Your task to perform on an android device: View the shopping cart on target.com. Search for "apple airpods pro" on target.com, select the first entry, and add it to the cart. Image 0: 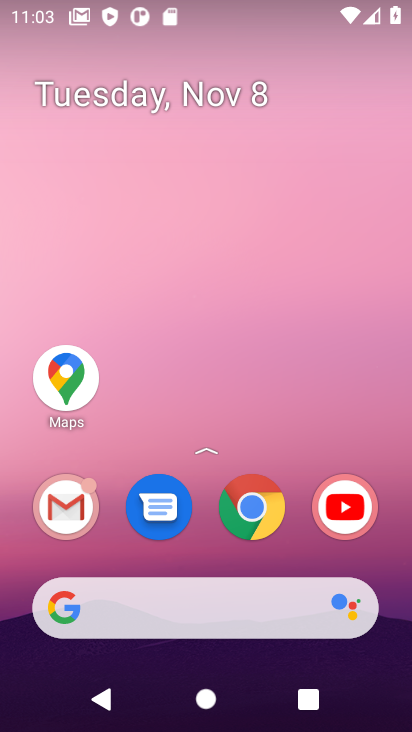
Step 0: click (259, 517)
Your task to perform on an android device: View the shopping cart on target.com. Search for "apple airpods pro" on target.com, select the first entry, and add it to the cart. Image 1: 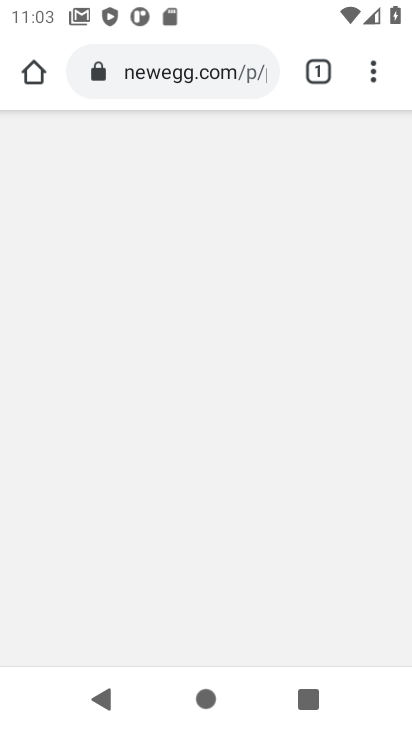
Step 1: click (240, 74)
Your task to perform on an android device: View the shopping cart on target.com. Search for "apple airpods pro" on target.com, select the first entry, and add it to the cart. Image 2: 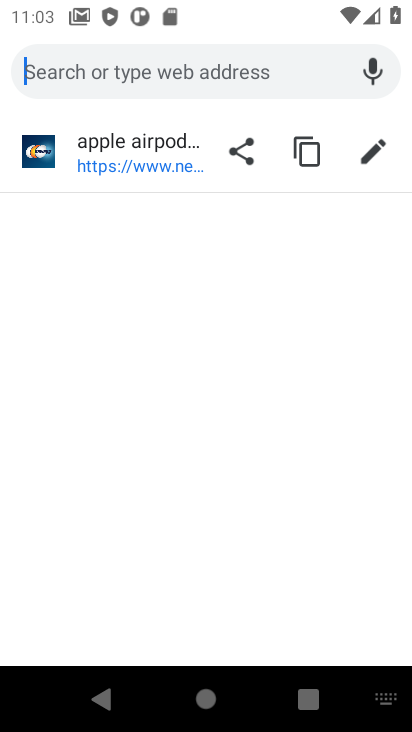
Step 2: type "target.com"
Your task to perform on an android device: View the shopping cart on target.com. Search for "apple airpods pro" on target.com, select the first entry, and add it to the cart. Image 3: 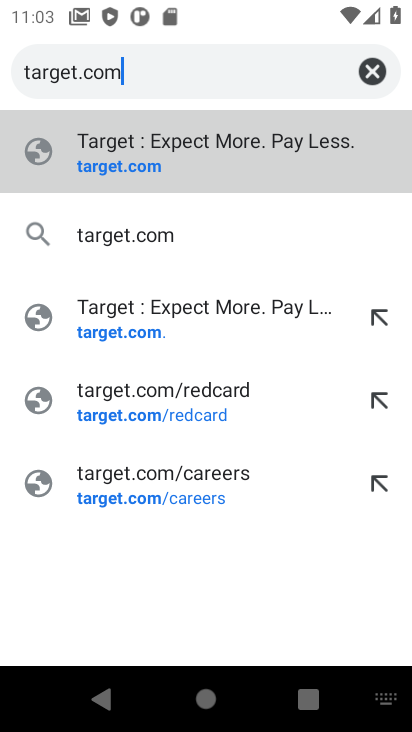
Step 3: press enter
Your task to perform on an android device: View the shopping cart on target.com. Search for "apple airpods pro" on target.com, select the first entry, and add it to the cart. Image 4: 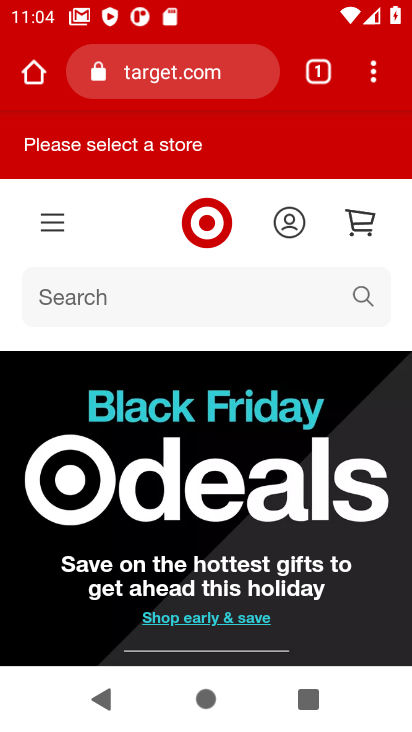
Step 4: click (115, 300)
Your task to perform on an android device: View the shopping cart on target.com. Search for "apple airpods pro" on target.com, select the first entry, and add it to the cart. Image 5: 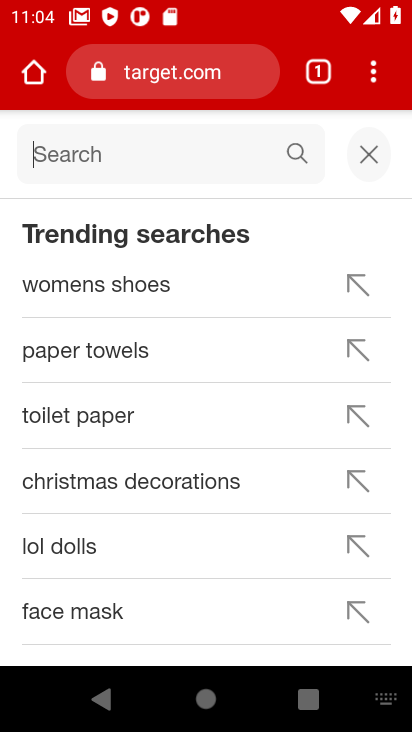
Step 5: press enter
Your task to perform on an android device: View the shopping cart on target.com. Search for "apple airpods pro" on target.com, select the first entry, and add it to the cart. Image 6: 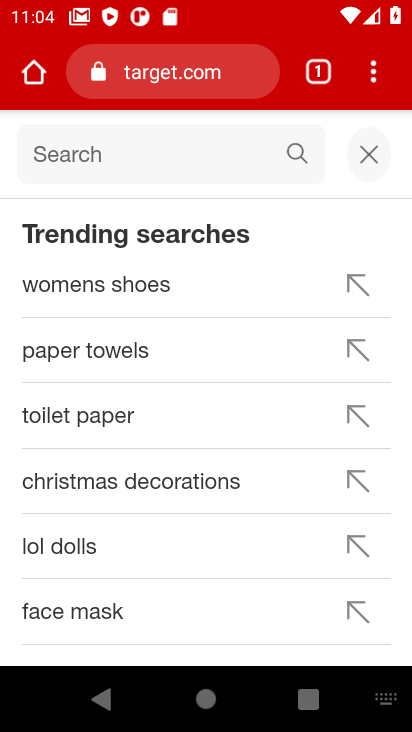
Step 6: type "apple airpods pro"
Your task to perform on an android device: View the shopping cart on target.com. Search for "apple airpods pro" on target.com, select the first entry, and add it to the cart. Image 7: 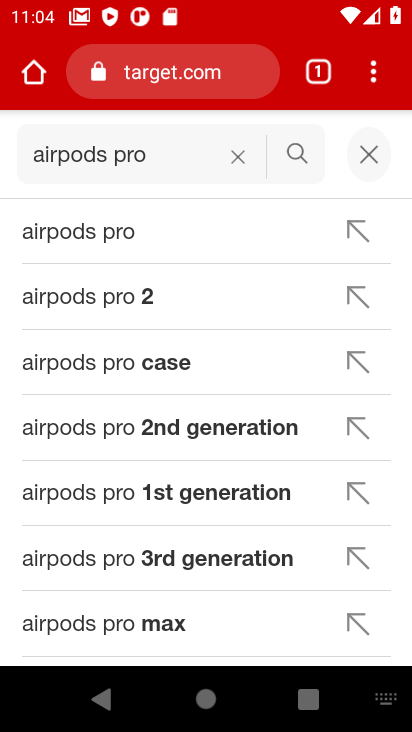
Step 7: click (241, 157)
Your task to perform on an android device: View the shopping cart on target.com. Search for "apple airpods pro" on target.com, select the first entry, and add it to the cart. Image 8: 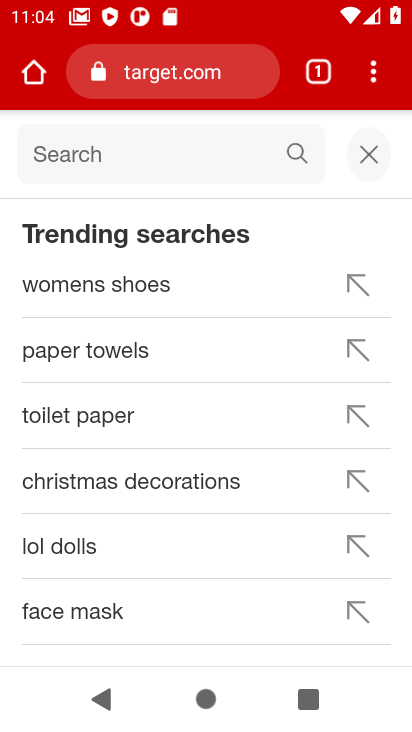
Step 8: type "apple airpods pro"
Your task to perform on an android device: View the shopping cart on target.com. Search for "apple airpods pro" on target.com, select the first entry, and add it to the cart. Image 9: 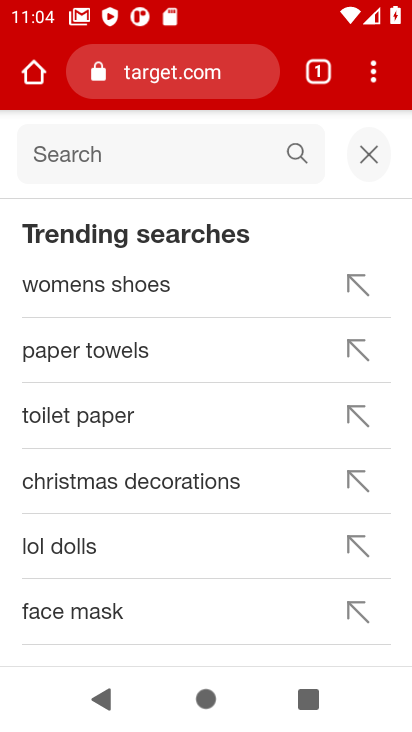
Step 9: press enter
Your task to perform on an android device: View the shopping cart on target.com. Search for "apple airpods pro" on target.com, select the first entry, and add it to the cart. Image 10: 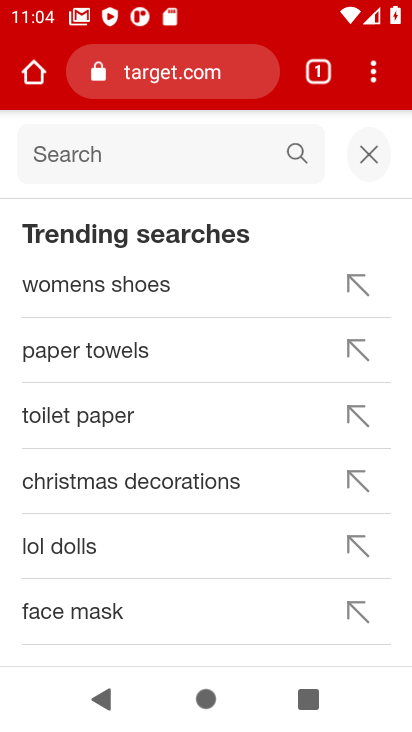
Step 10: click (79, 156)
Your task to perform on an android device: View the shopping cart on target.com. Search for "apple airpods pro" on target.com, select the first entry, and add it to the cart. Image 11: 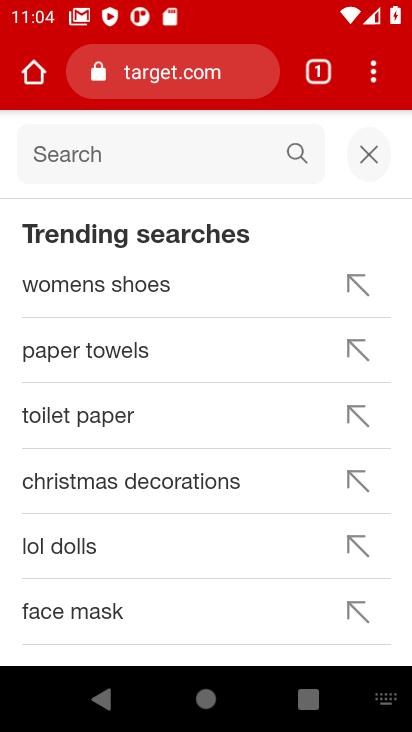
Step 11: type "apple airpods pro"
Your task to perform on an android device: View the shopping cart on target.com. Search for "apple airpods pro" on target.com, select the first entry, and add it to the cart. Image 12: 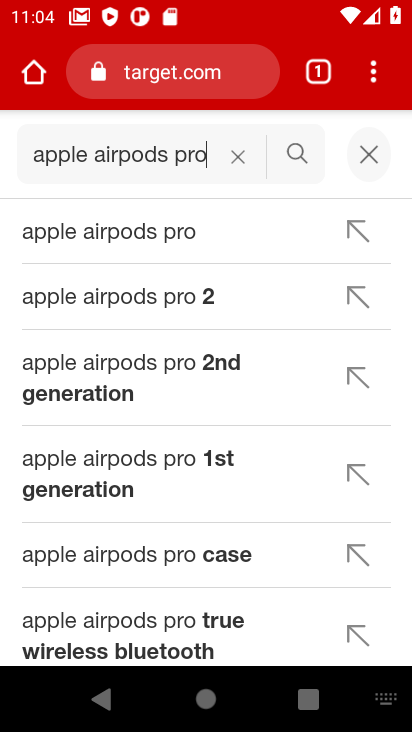
Step 12: press enter
Your task to perform on an android device: View the shopping cart on target.com. Search for "apple airpods pro" on target.com, select the first entry, and add it to the cart. Image 13: 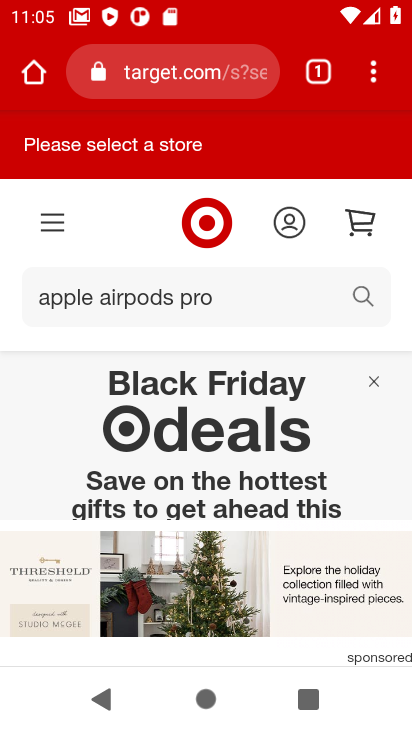
Step 13: drag from (273, 597) to (345, 178)
Your task to perform on an android device: View the shopping cart on target.com. Search for "apple airpods pro" on target.com, select the first entry, and add it to the cart. Image 14: 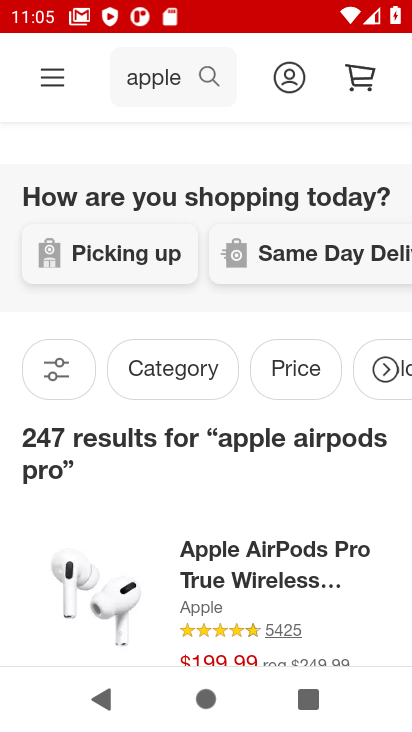
Step 14: drag from (150, 560) to (269, 344)
Your task to perform on an android device: View the shopping cart on target.com. Search for "apple airpods pro" on target.com, select the first entry, and add it to the cart. Image 15: 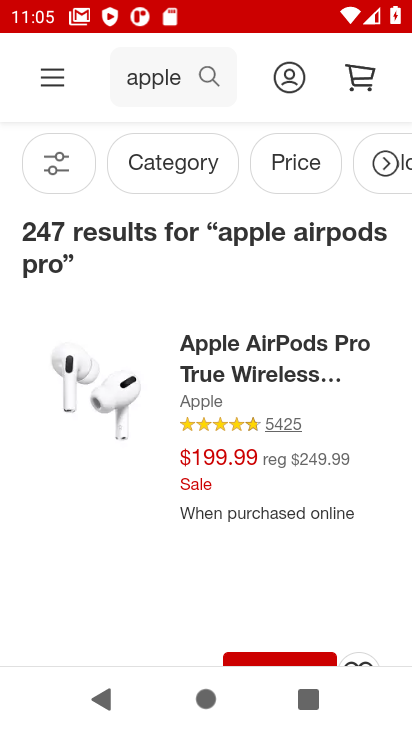
Step 15: drag from (233, 604) to (313, 395)
Your task to perform on an android device: View the shopping cart on target.com. Search for "apple airpods pro" on target.com, select the first entry, and add it to the cart. Image 16: 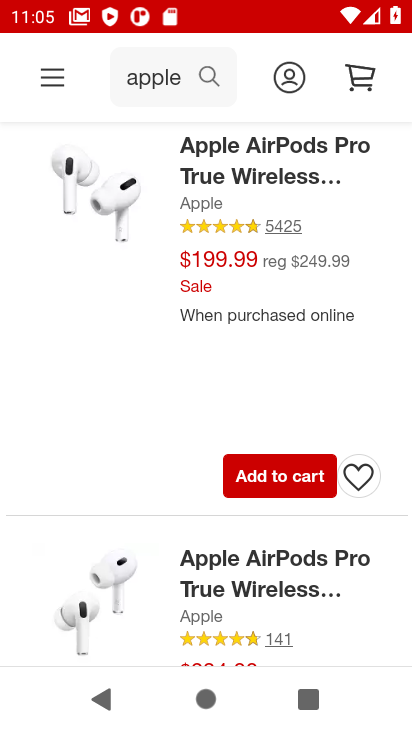
Step 16: click (288, 473)
Your task to perform on an android device: View the shopping cart on target.com. Search for "apple airpods pro" on target.com, select the first entry, and add it to the cart. Image 17: 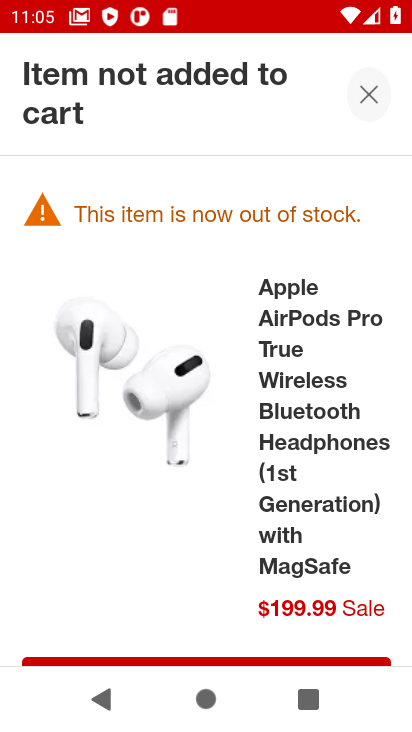
Step 17: drag from (167, 538) to (307, 147)
Your task to perform on an android device: View the shopping cart on target.com. Search for "apple airpods pro" on target.com, select the first entry, and add it to the cart. Image 18: 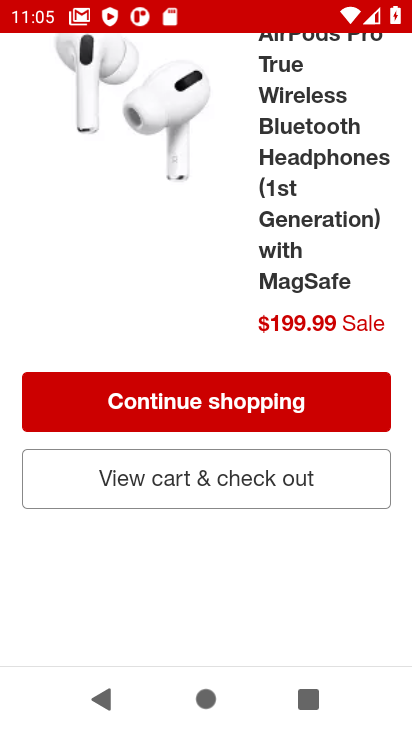
Step 18: click (214, 480)
Your task to perform on an android device: View the shopping cart on target.com. Search for "apple airpods pro" on target.com, select the first entry, and add it to the cart. Image 19: 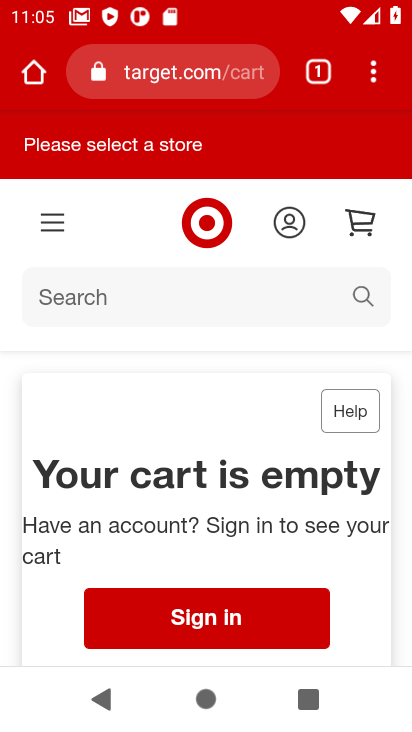
Step 19: drag from (197, 536) to (296, 271)
Your task to perform on an android device: View the shopping cart on target.com. Search for "apple airpods pro" on target.com, select the first entry, and add it to the cart. Image 20: 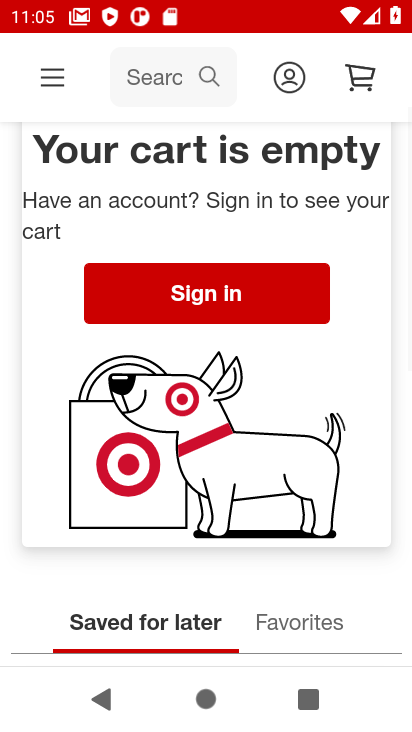
Step 20: press back button
Your task to perform on an android device: View the shopping cart on target.com. Search for "apple airpods pro" on target.com, select the first entry, and add it to the cart. Image 21: 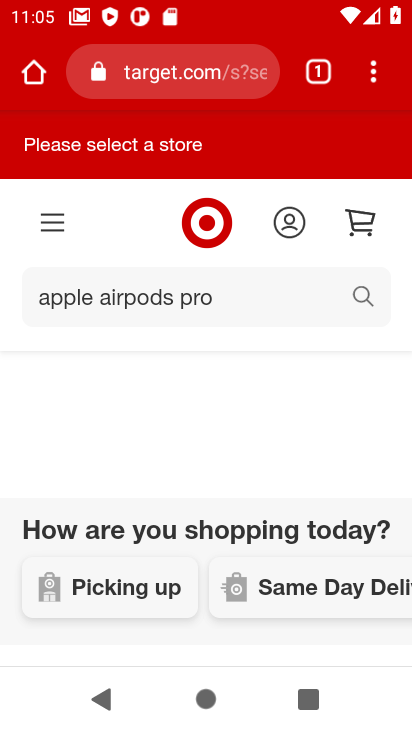
Step 21: drag from (205, 471) to (346, 49)
Your task to perform on an android device: View the shopping cart on target.com. Search for "apple airpods pro" on target.com, select the first entry, and add it to the cart. Image 22: 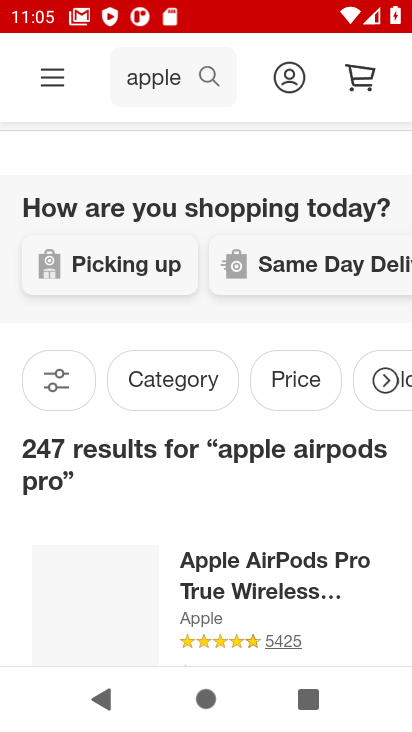
Step 22: drag from (247, 541) to (328, 182)
Your task to perform on an android device: View the shopping cart on target.com. Search for "apple airpods pro" on target.com, select the first entry, and add it to the cart. Image 23: 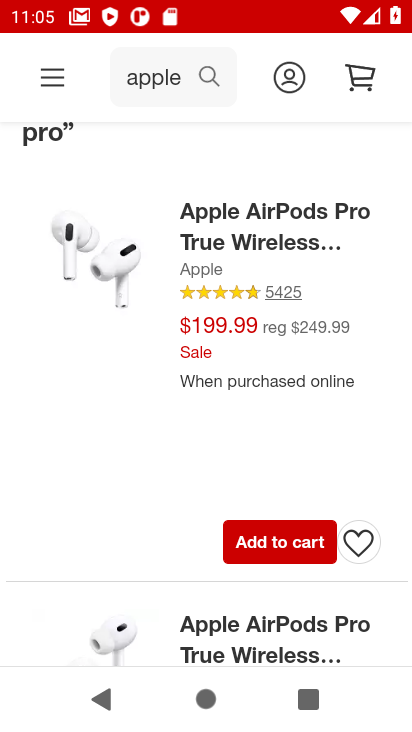
Step 23: click (286, 536)
Your task to perform on an android device: View the shopping cart on target.com. Search for "apple airpods pro" on target.com, select the first entry, and add it to the cart. Image 24: 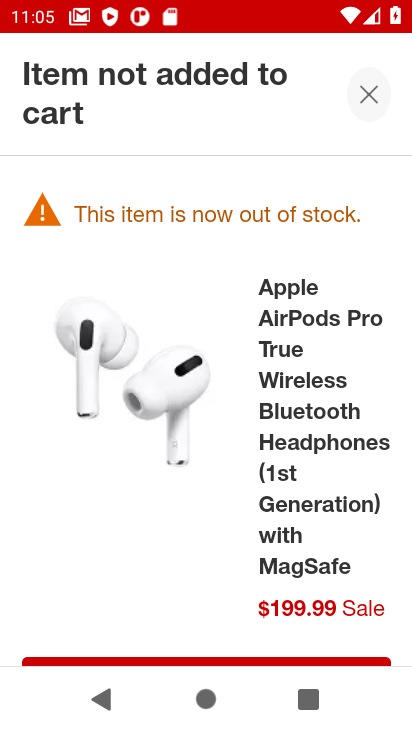
Step 24: task complete